Your task to perform on an android device: Set the phone to "Do not disturb". Image 0: 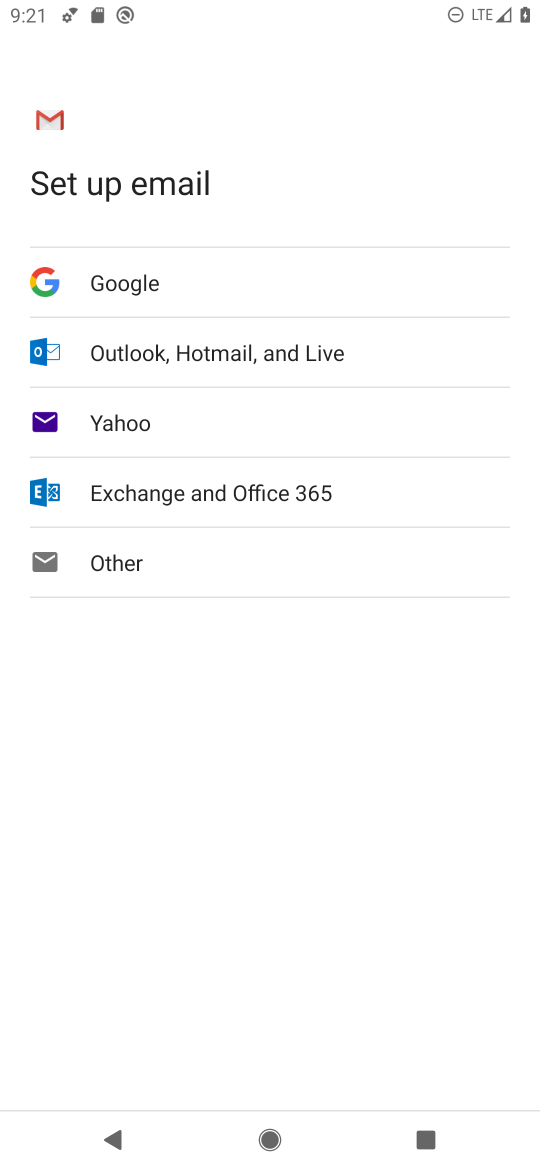
Step 0: press home button
Your task to perform on an android device: Set the phone to "Do not disturb". Image 1: 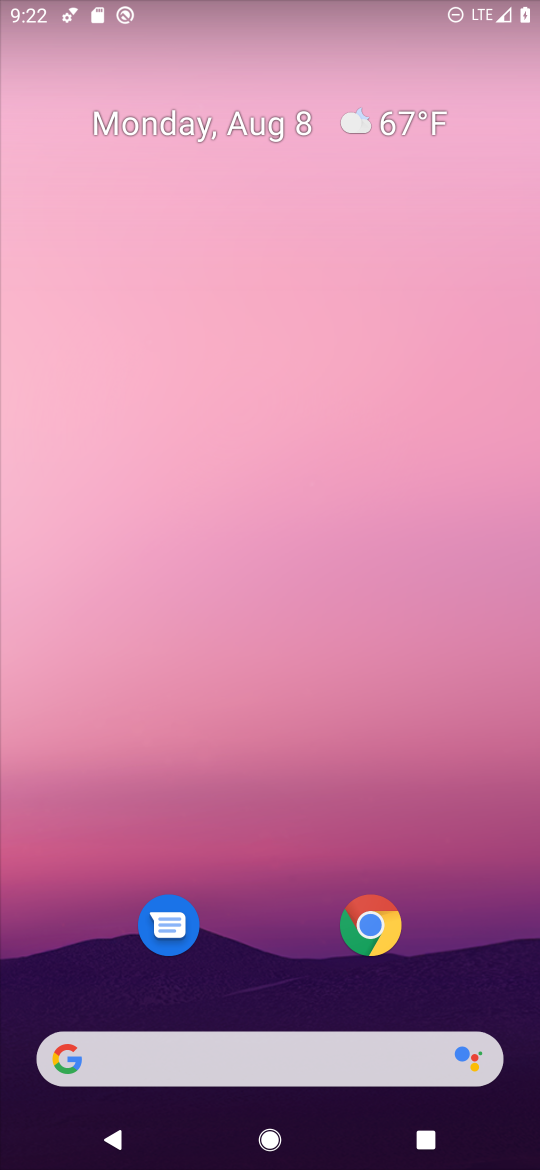
Step 1: task complete